Your task to perform on an android device: What is the news today? Image 0: 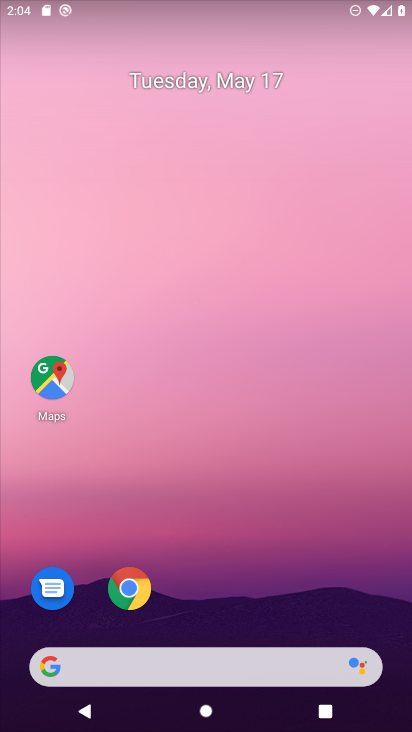
Step 0: click (114, 592)
Your task to perform on an android device: What is the news today? Image 1: 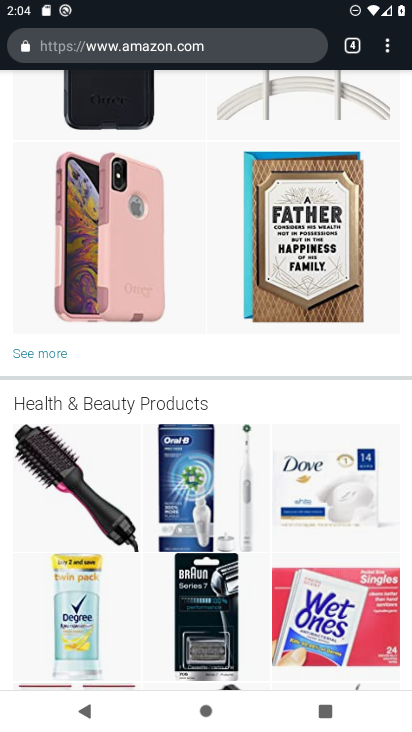
Step 1: click (350, 57)
Your task to perform on an android device: What is the news today? Image 2: 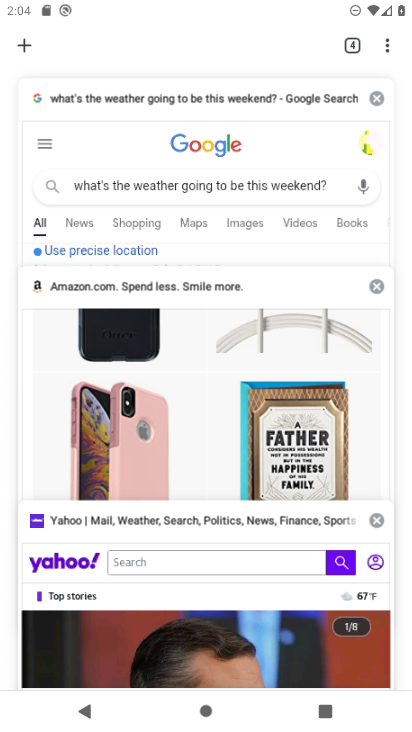
Step 2: click (24, 46)
Your task to perform on an android device: What is the news today? Image 3: 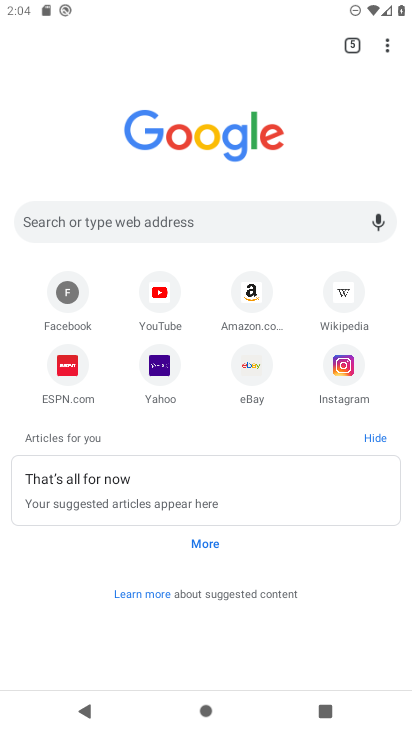
Step 3: click (137, 229)
Your task to perform on an android device: What is the news today? Image 4: 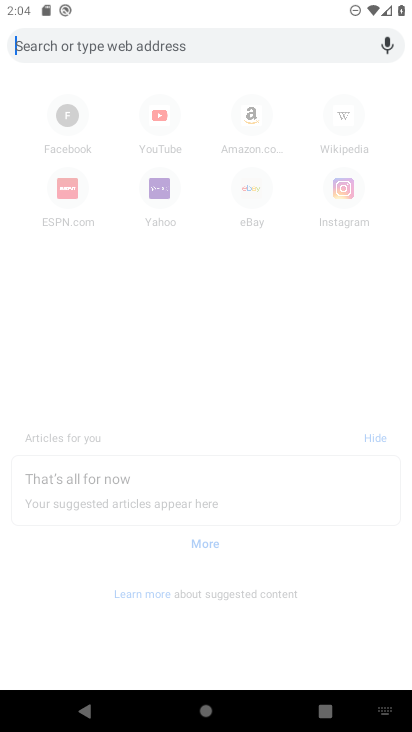
Step 4: type "what is the news today?"
Your task to perform on an android device: What is the news today? Image 5: 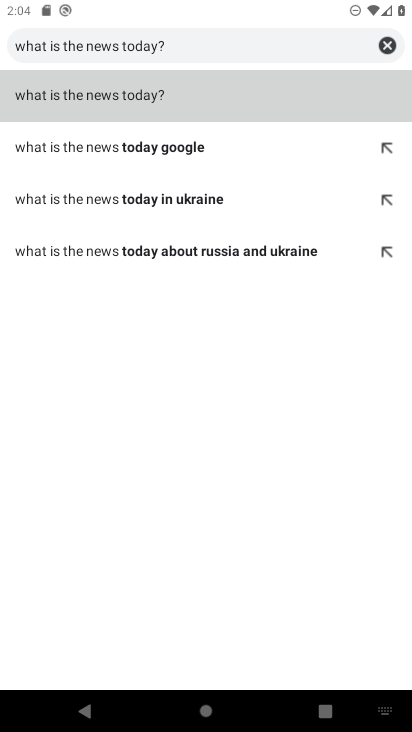
Step 5: click (102, 99)
Your task to perform on an android device: What is the news today? Image 6: 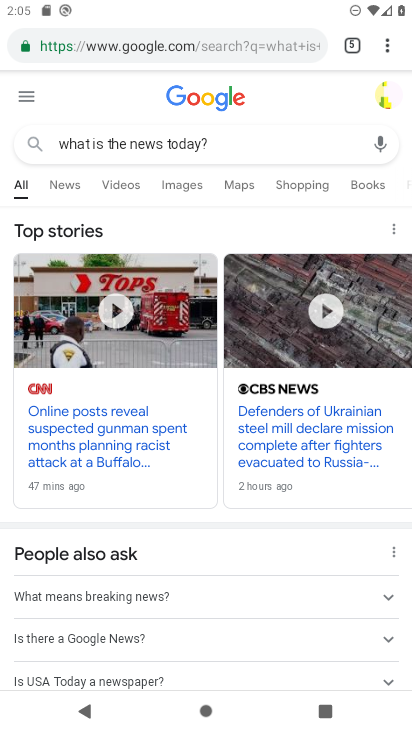
Step 6: task complete